Your task to perform on an android device: Go to eBay Image 0: 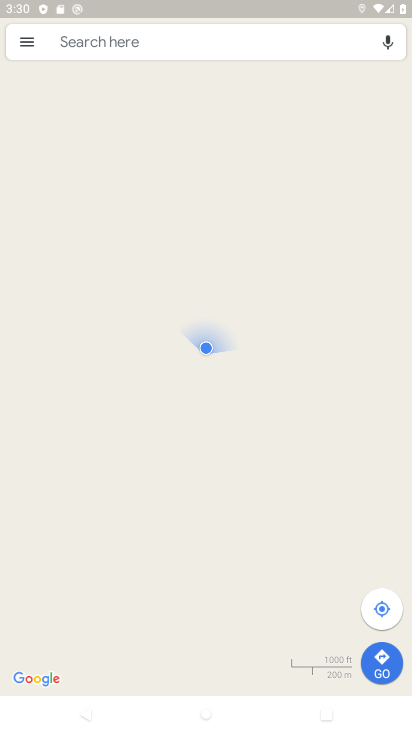
Step 0: press home button
Your task to perform on an android device: Go to eBay Image 1: 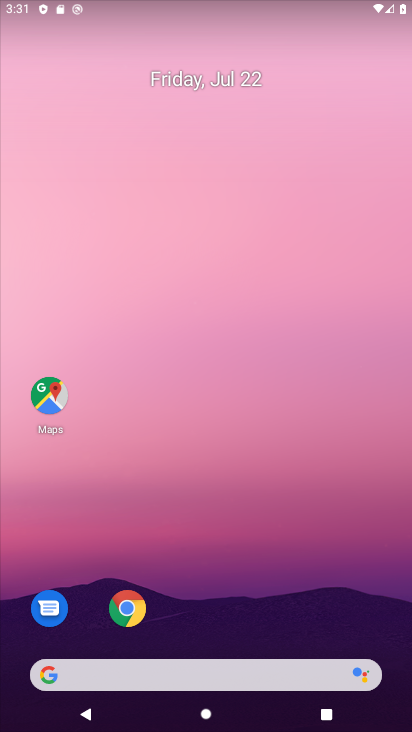
Step 1: click (129, 609)
Your task to perform on an android device: Go to eBay Image 2: 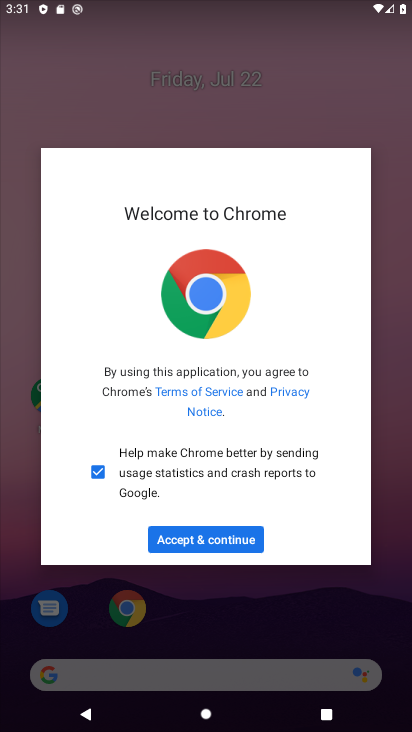
Step 2: click (225, 540)
Your task to perform on an android device: Go to eBay Image 3: 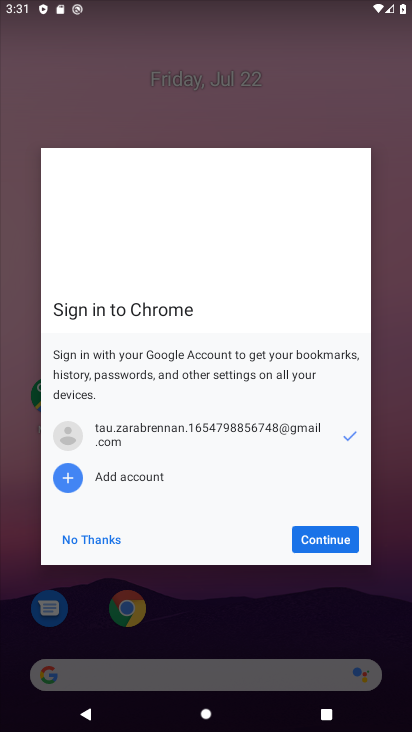
Step 3: click (305, 538)
Your task to perform on an android device: Go to eBay Image 4: 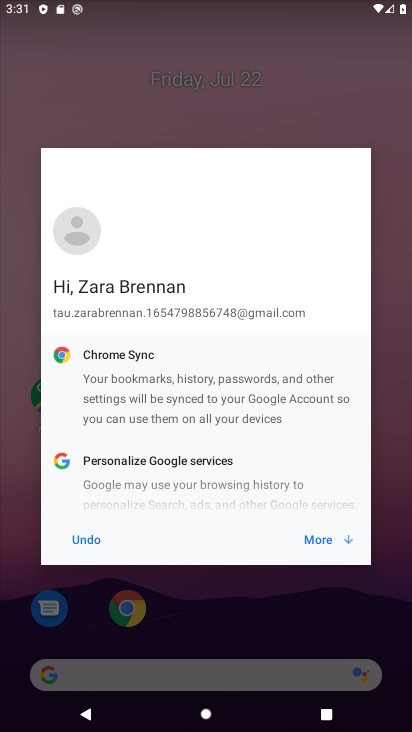
Step 4: click (315, 539)
Your task to perform on an android device: Go to eBay Image 5: 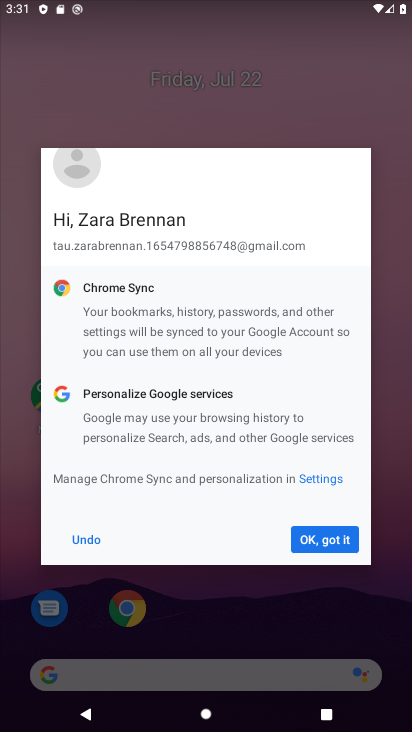
Step 5: click (337, 539)
Your task to perform on an android device: Go to eBay Image 6: 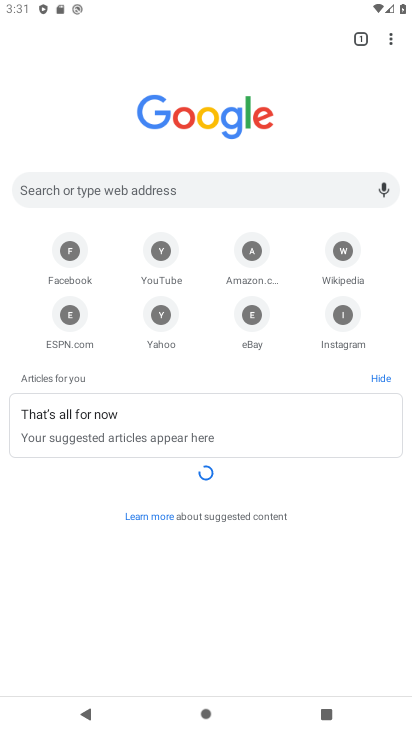
Step 6: click (252, 318)
Your task to perform on an android device: Go to eBay Image 7: 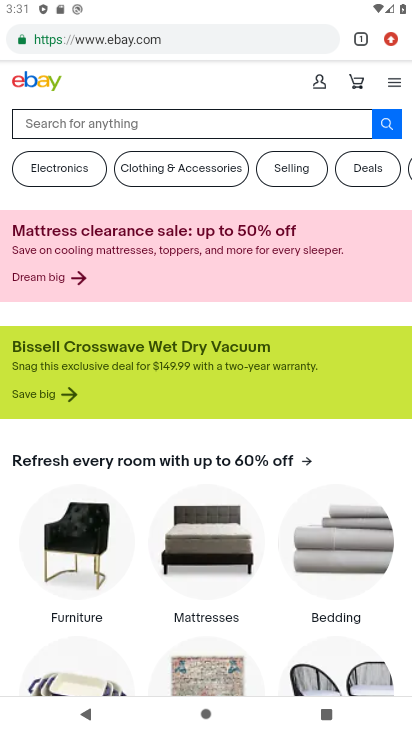
Step 7: task complete